Your task to perform on an android device: Open the Play Movies app and select the watchlist tab. Image 0: 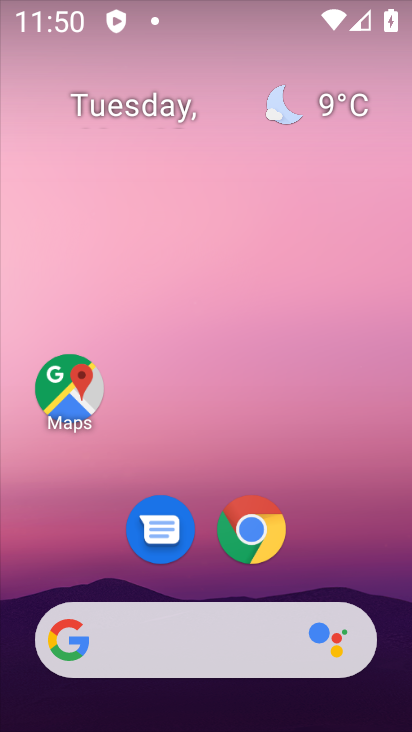
Step 0: drag from (322, 565) to (354, 170)
Your task to perform on an android device: Open the Play Movies app and select the watchlist tab. Image 1: 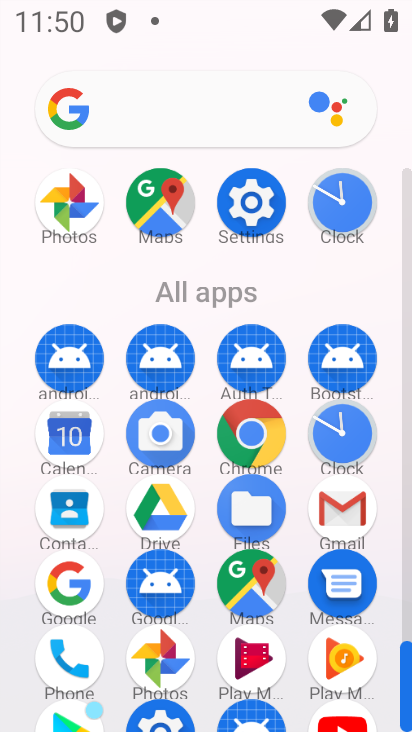
Step 1: click (265, 670)
Your task to perform on an android device: Open the Play Movies app and select the watchlist tab. Image 2: 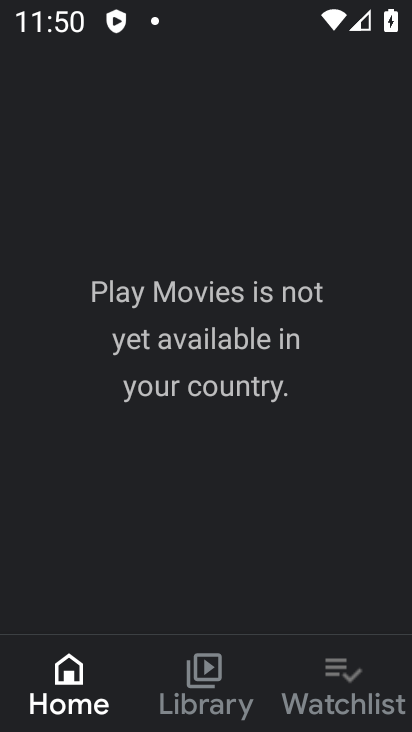
Step 2: click (341, 685)
Your task to perform on an android device: Open the Play Movies app and select the watchlist tab. Image 3: 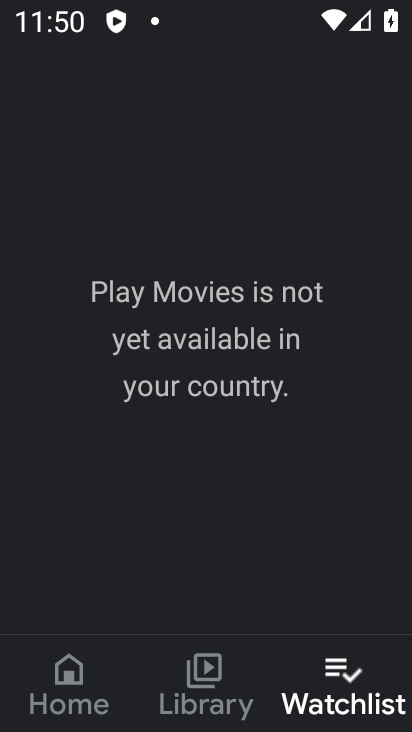
Step 3: task complete